Your task to perform on an android device: turn on javascript in the chrome app Image 0: 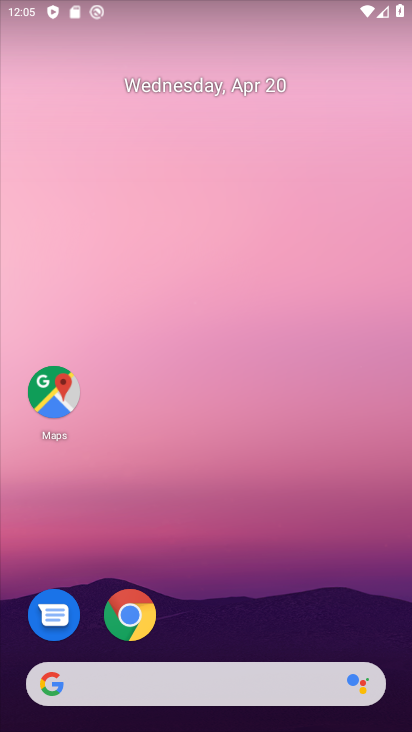
Step 0: click (133, 611)
Your task to perform on an android device: turn on javascript in the chrome app Image 1: 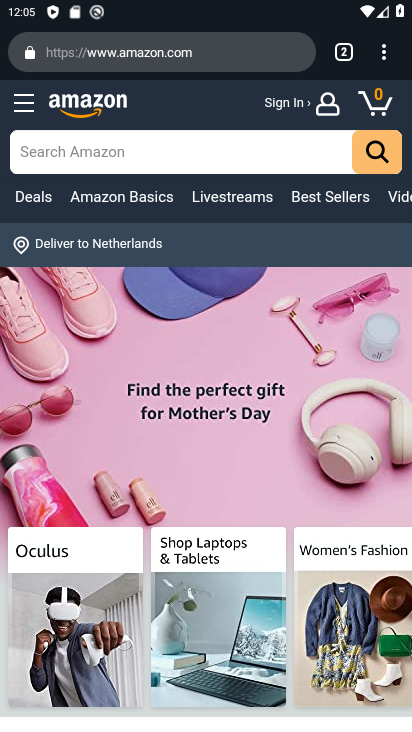
Step 1: click (384, 50)
Your task to perform on an android device: turn on javascript in the chrome app Image 2: 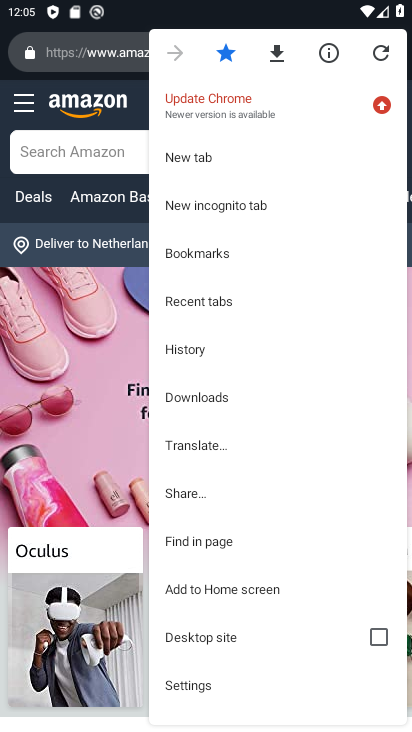
Step 2: click (195, 684)
Your task to perform on an android device: turn on javascript in the chrome app Image 3: 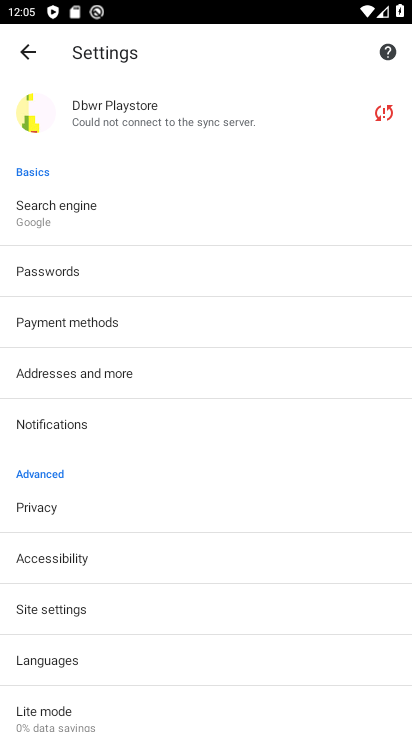
Step 3: click (40, 609)
Your task to perform on an android device: turn on javascript in the chrome app Image 4: 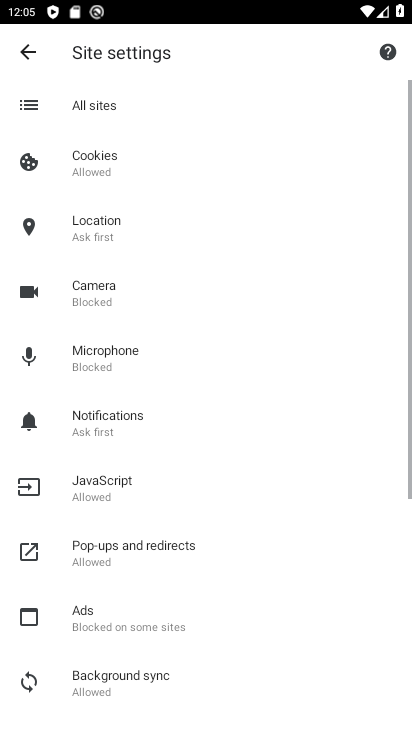
Step 4: click (161, 471)
Your task to perform on an android device: turn on javascript in the chrome app Image 5: 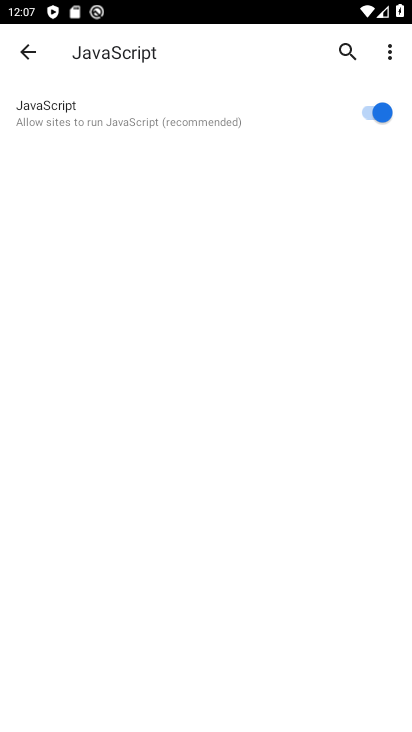
Step 5: task complete